Your task to perform on an android device: Go to eBay Image 0: 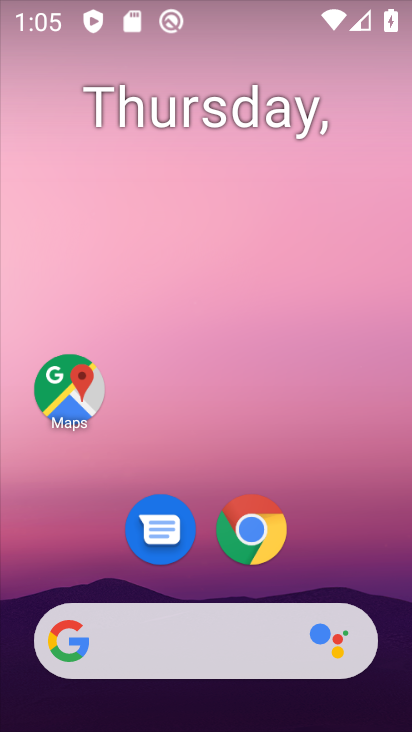
Step 0: drag from (331, 553) to (336, 197)
Your task to perform on an android device: Go to eBay Image 1: 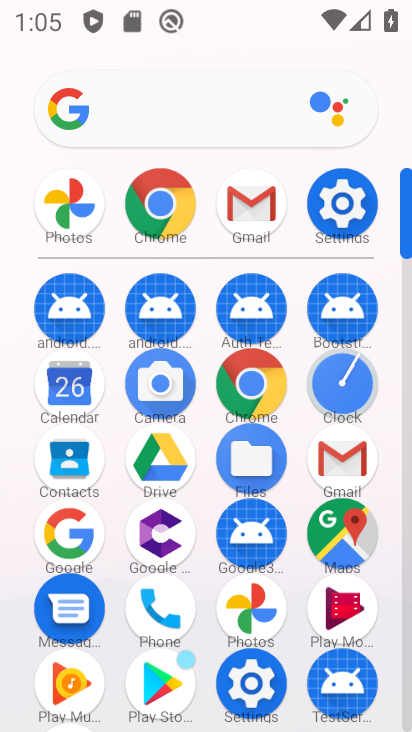
Step 1: click (266, 391)
Your task to perform on an android device: Go to eBay Image 2: 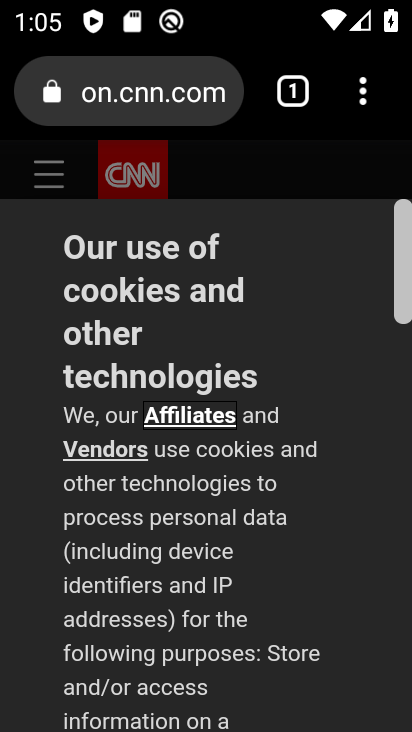
Step 2: click (155, 108)
Your task to perform on an android device: Go to eBay Image 3: 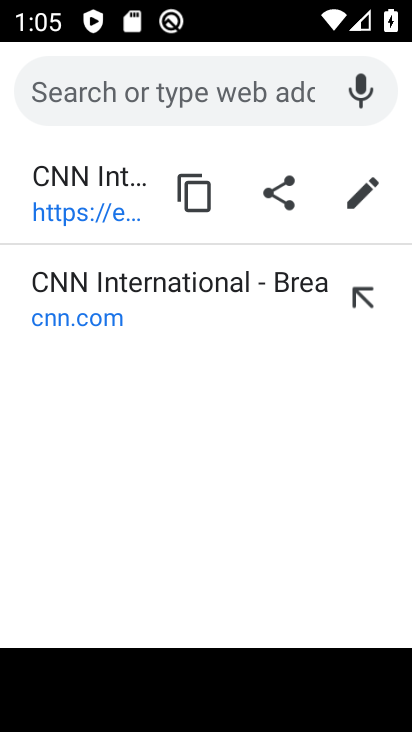
Step 3: type "ebay.com"
Your task to perform on an android device: Go to eBay Image 4: 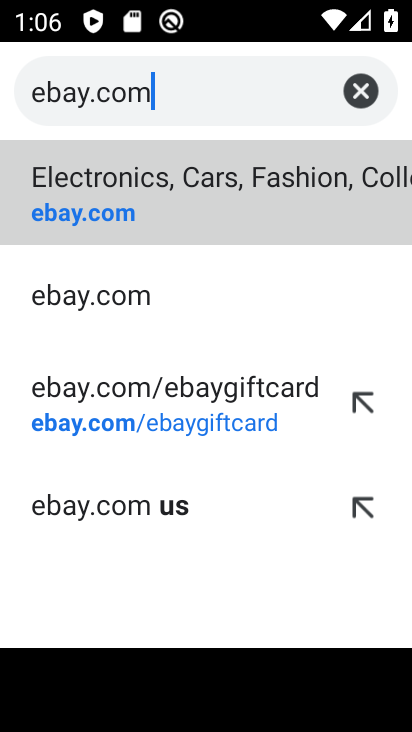
Step 4: click (123, 191)
Your task to perform on an android device: Go to eBay Image 5: 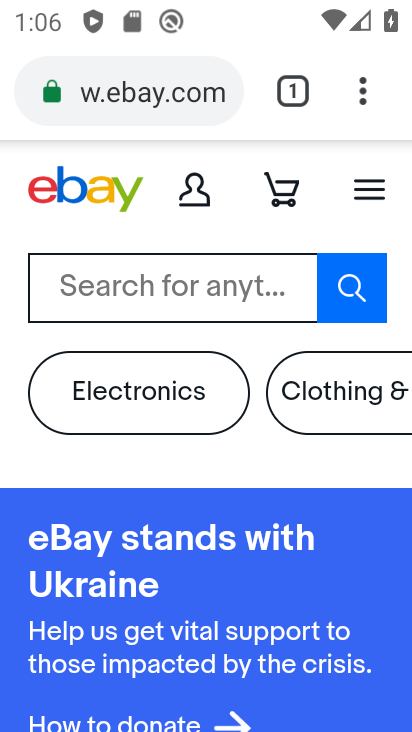
Step 5: task complete